Your task to perform on an android device: Open the stopwatch Image 0: 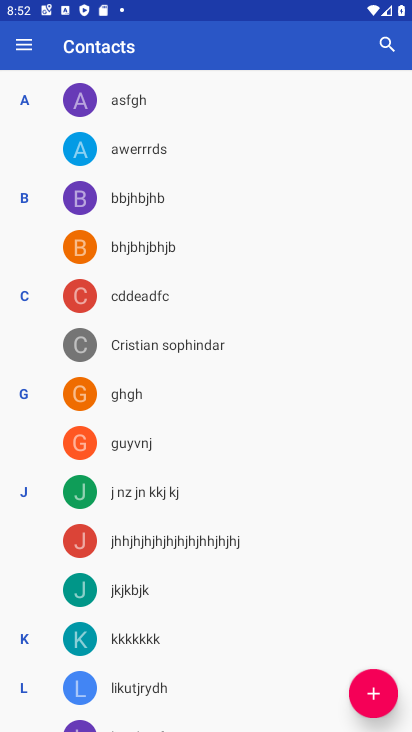
Step 0: press home button
Your task to perform on an android device: Open the stopwatch Image 1: 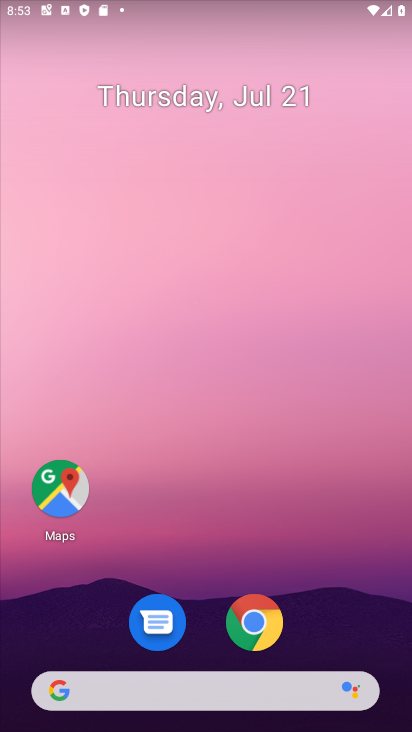
Step 1: drag from (297, 709) to (379, 285)
Your task to perform on an android device: Open the stopwatch Image 2: 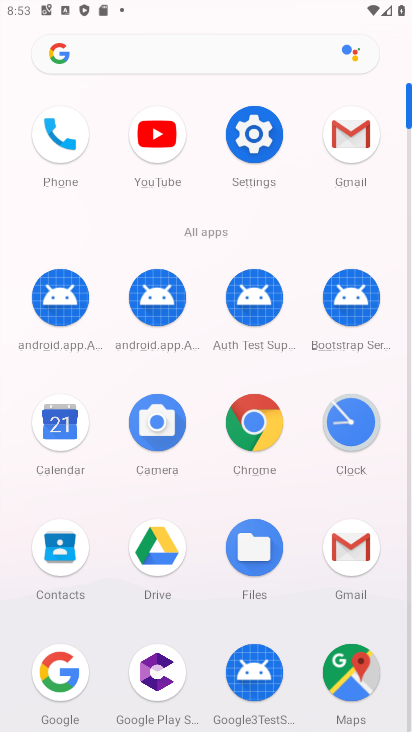
Step 2: click (353, 415)
Your task to perform on an android device: Open the stopwatch Image 3: 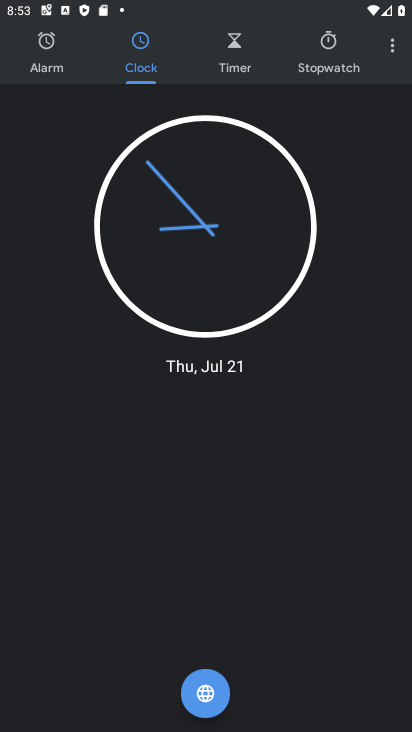
Step 3: click (328, 56)
Your task to perform on an android device: Open the stopwatch Image 4: 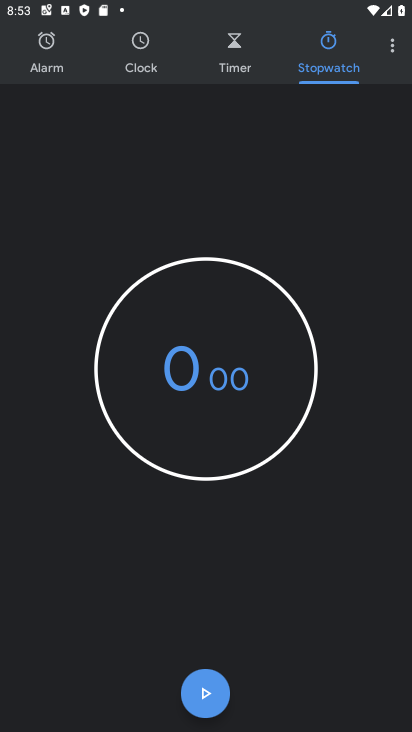
Step 4: task complete